Your task to perform on an android device: add a label to a message in the gmail app Image 0: 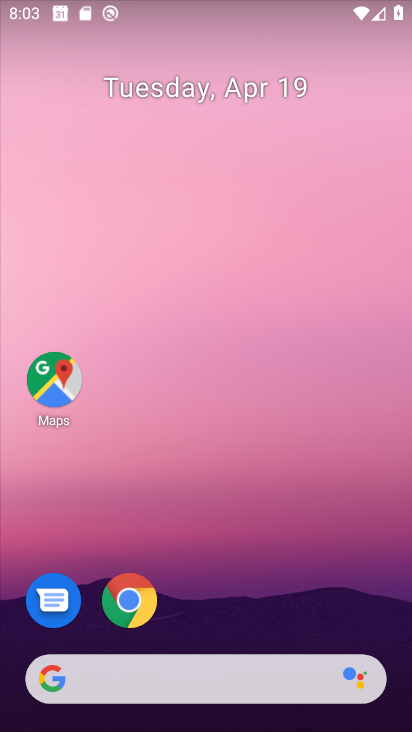
Step 0: drag from (362, 594) to (344, 157)
Your task to perform on an android device: add a label to a message in the gmail app Image 1: 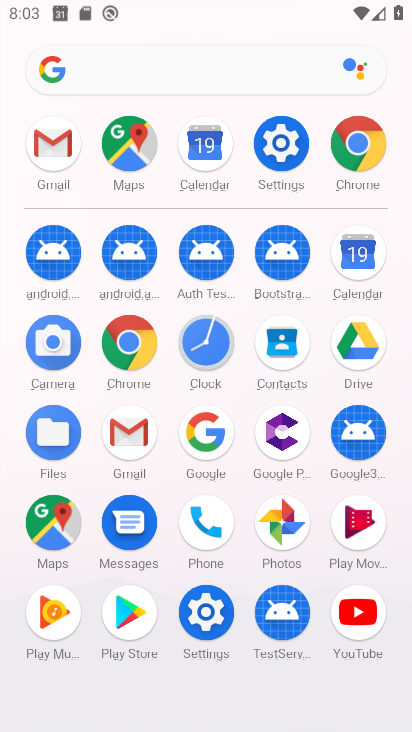
Step 1: click (139, 435)
Your task to perform on an android device: add a label to a message in the gmail app Image 2: 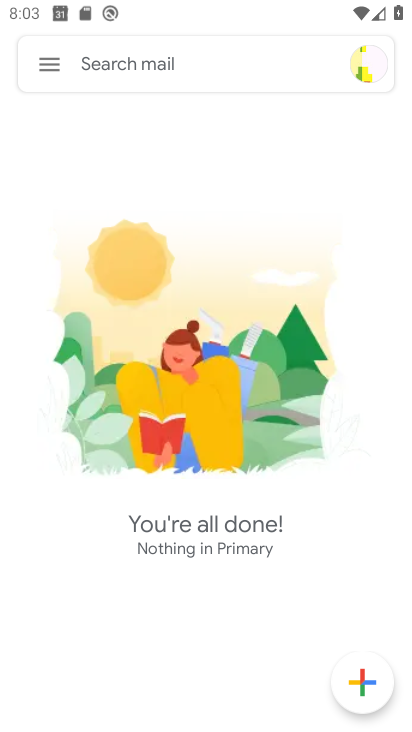
Step 2: task complete